Your task to perform on an android device: turn on airplane mode Image 0: 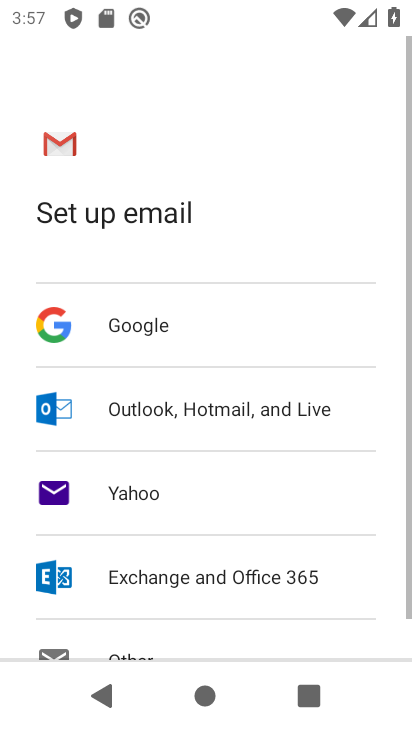
Step 0: press back button
Your task to perform on an android device: turn on airplane mode Image 1: 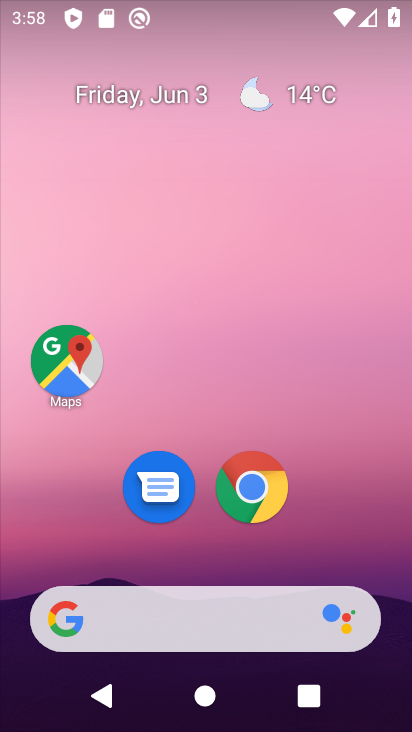
Step 1: drag from (362, 14) to (292, 400)
Your task to perform on an android device: turn on airplane mode Image 2: 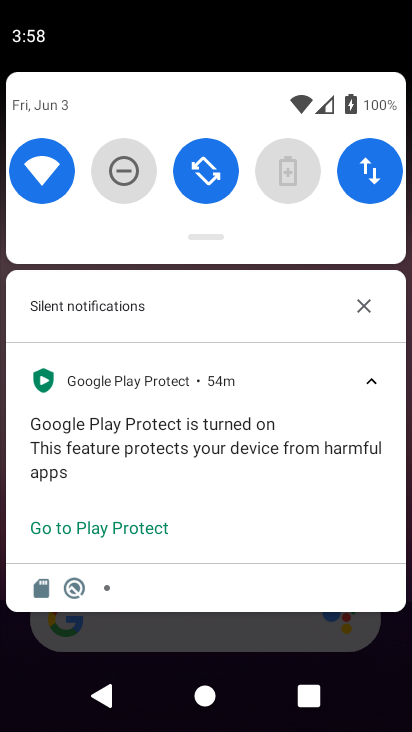
Step 2: drag from (212, 233) to (214, 568)
Your task to perform on an android device: turn on airplane mode Image 3: 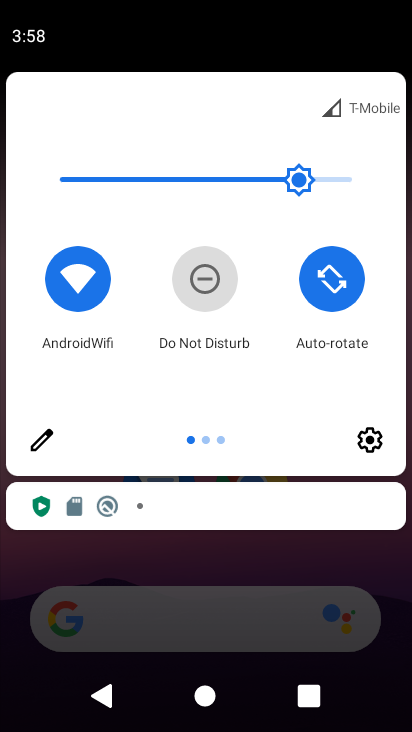
Step 3: drag from (362, 295) to (22, 267)
Your task to perform on an android device: turn on airplane mode Image 4: 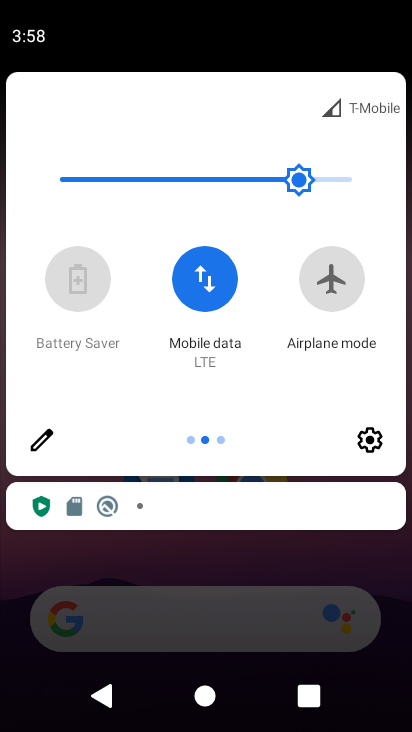
Step 4: click (328, 285)
Your task to perform on an android device: turn on airplane mode Image 5: 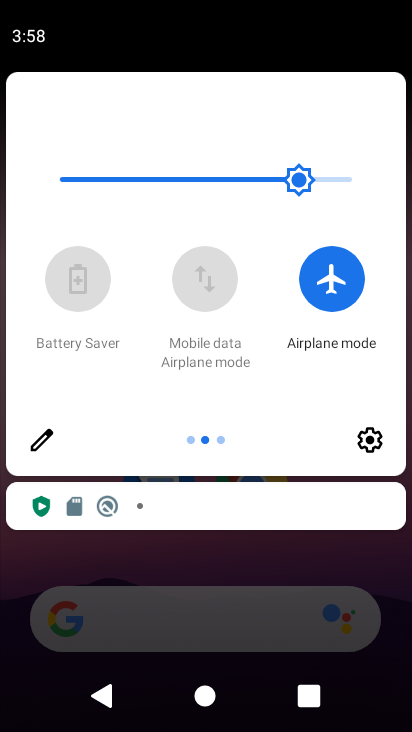
Step 5: task complete